Your task to perform on an android device: create a new album in the google photos Image 0: 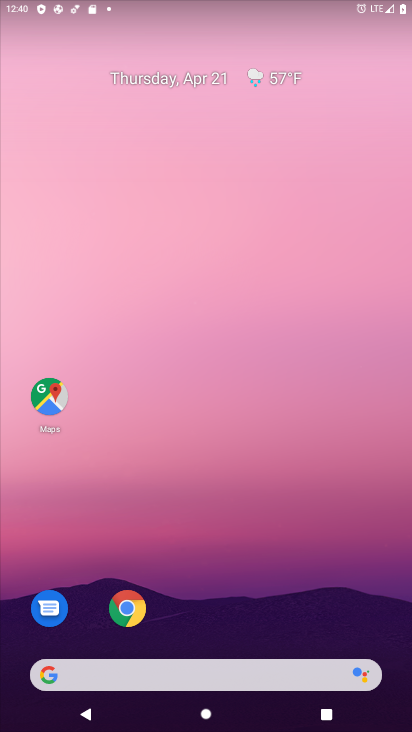
Step 0: drag from (209, 598) to (229, 104)
Your task to perform on an android device: create a new album in the google photos Image 1: 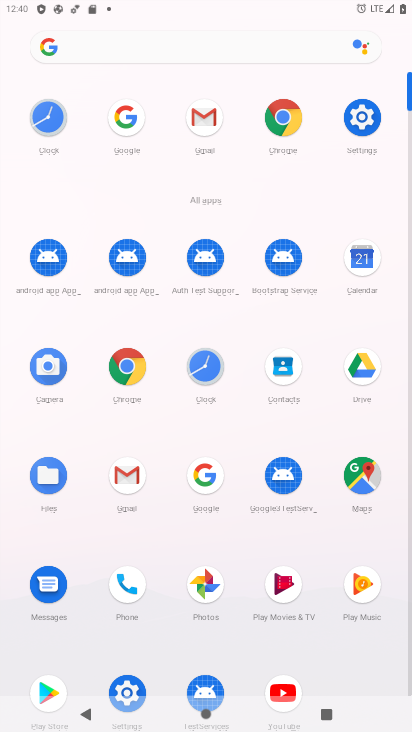
Step 1: click (212, 574)
Your task to perform on an android device: create a new album in the google photos Image 2: 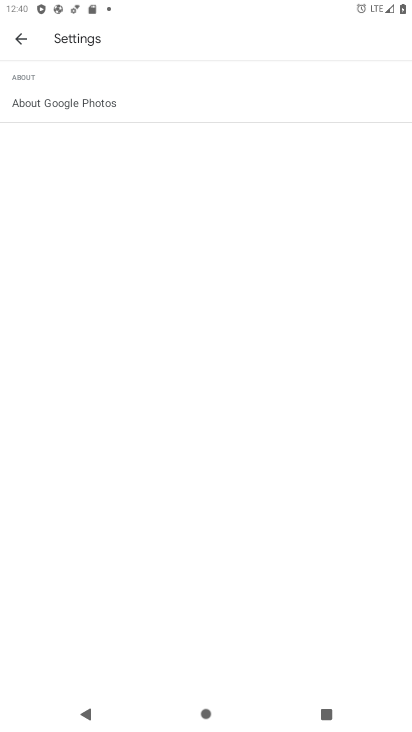
Step 2: click (13, 34)
Your task to perform on an android device: create a new album in the google photos Image 3: 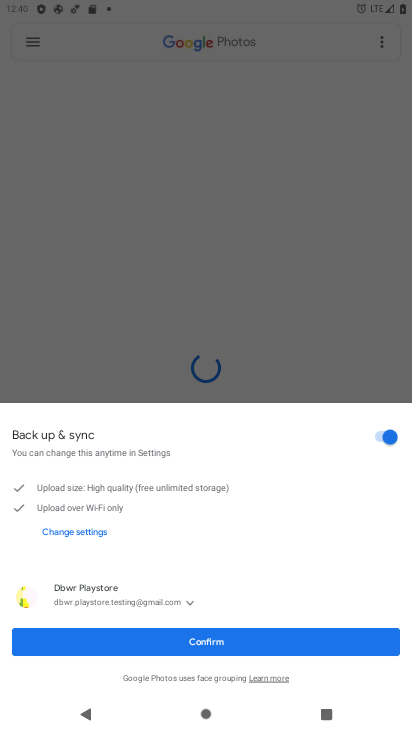
Step 3: click (201, 646)
Your task to perform on an android device: create a new album in the google photos Image 4: 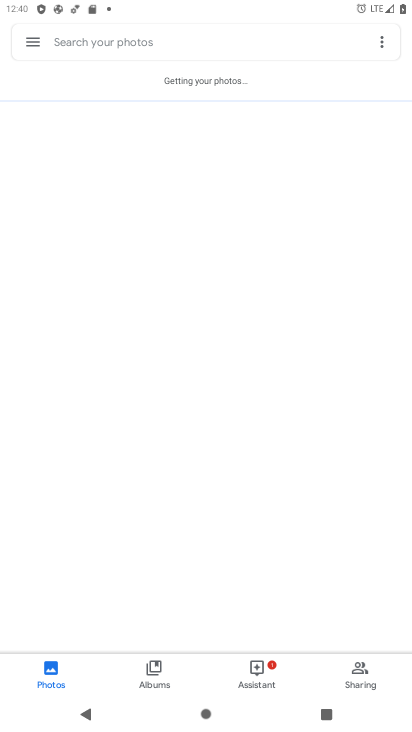
Step 4: click (377, 40)
Your task to perform on an android device: create a new album in the google photos Image 5: 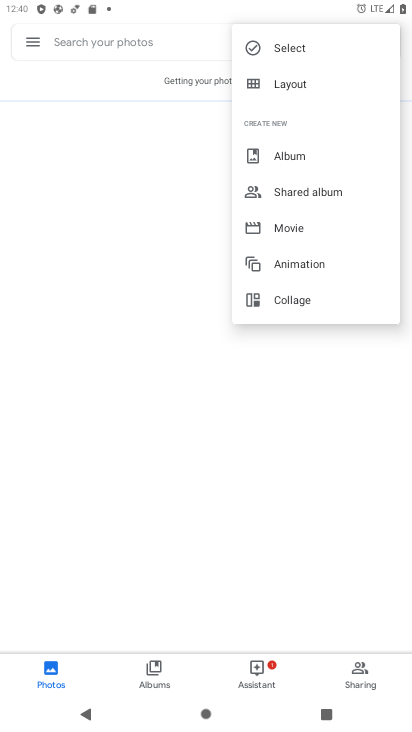
Step 5: click (287, 152)
Your task to perform on an android device: create a new album in the google photos Image 6: 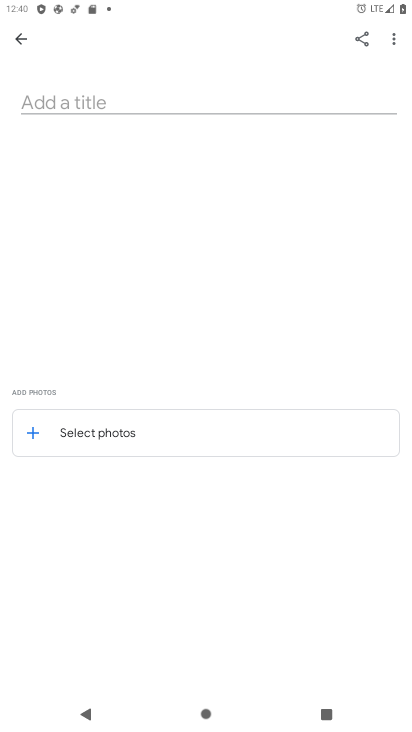
Step 6: click (92, 106)
Your task to perform on an android device: create a new album in the google photos Image 7: 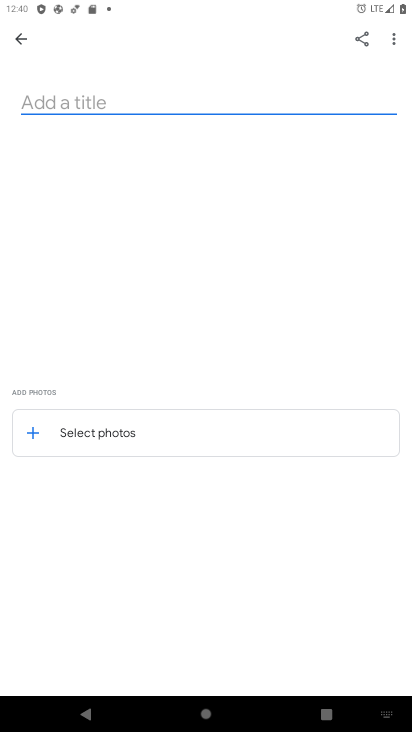
Step 7: type "bcvbc"
Your task to perform on an android device: create a new album in the google photos Image 8: 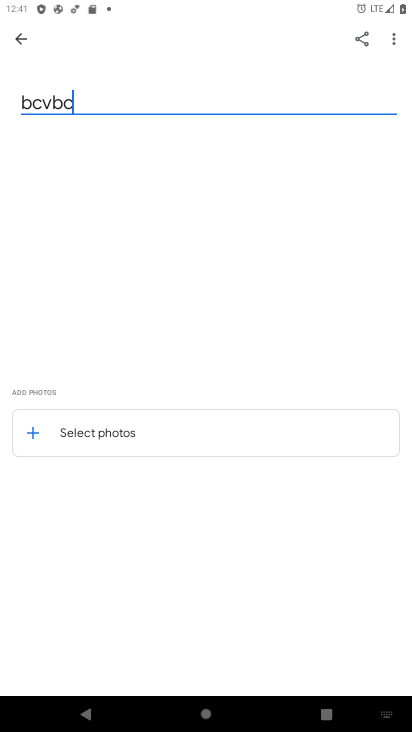
Step 8: click (31, 428)
Your task to perform on an android device: create a new album in the google photos Image 9: 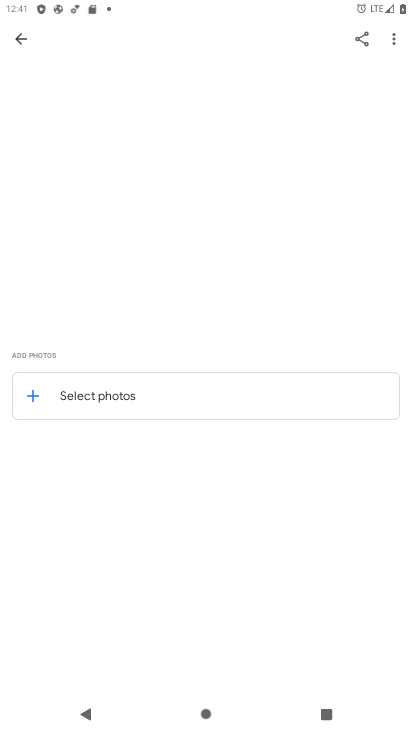
Step 9: click (31, 396)
Your task to perform on an android device: create a new album in the google photos Image 10: 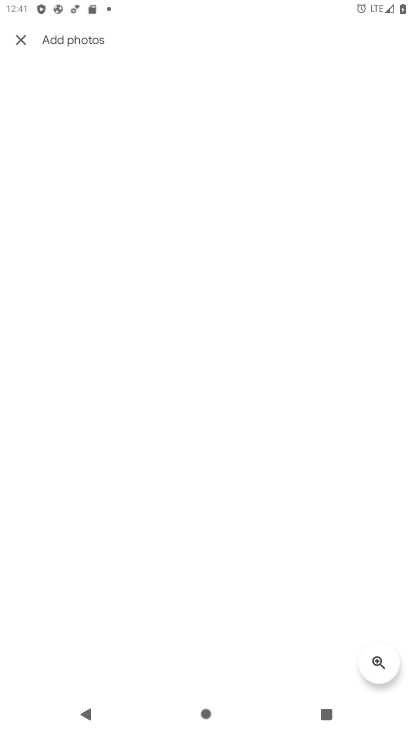
Step 10: click (22, 35)
Your task to perform on an android device: create a new album in the google photos Image 11: 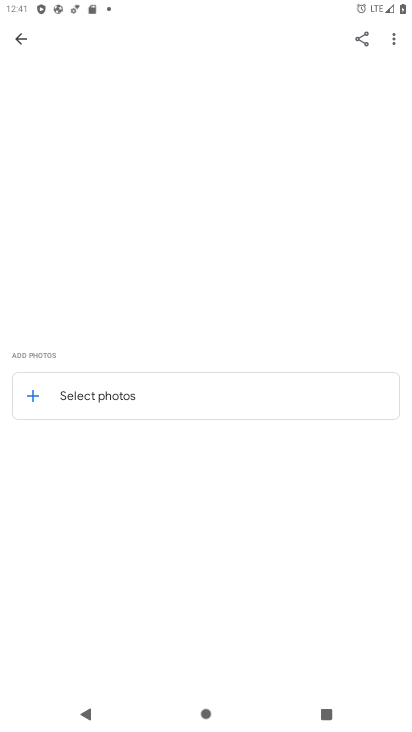
Step 11: click (33, 393)
Your task to perform on an android device: create a new album in the google photos Image 12: 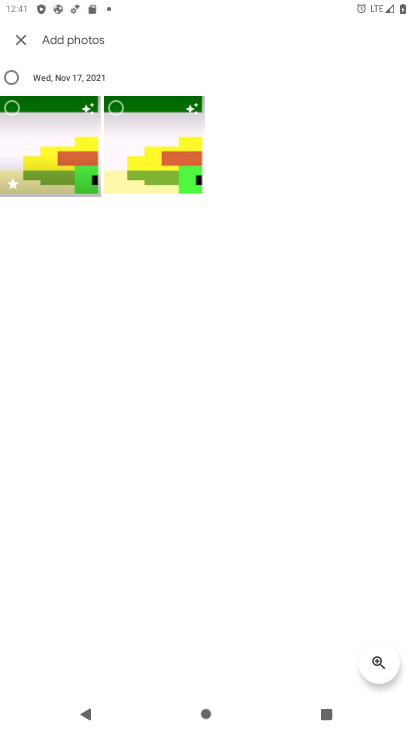
Step 12: click (114, 136)
Your task to perform on an android device: create a new album in the google photos Image 13: 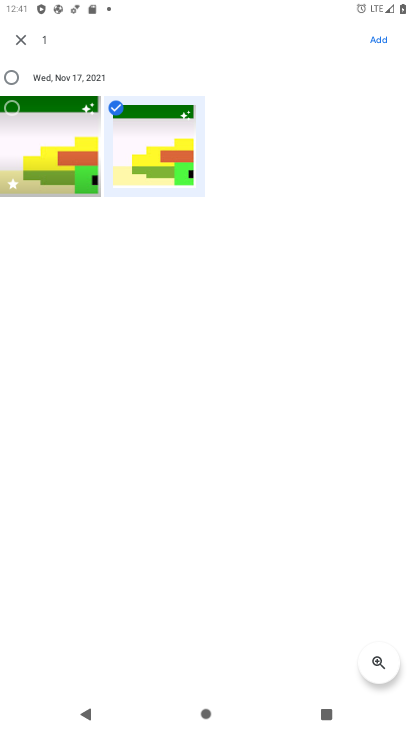
Step 13: click (382, 42)
Your task to perform on an android device: create a new album in the google photos Image 14: 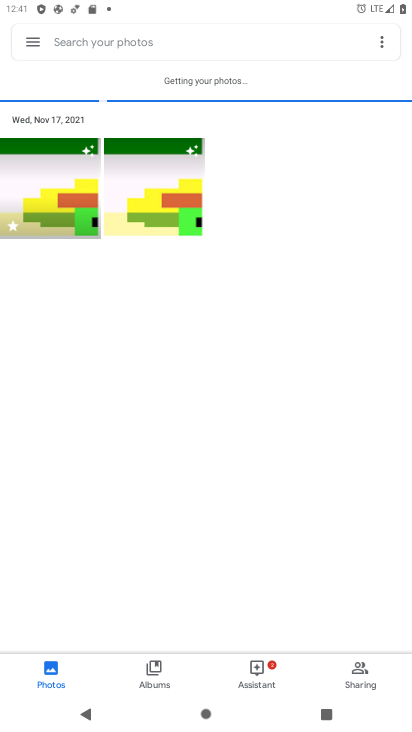
Step 14: click (379, 33)
Your task to perform on an android device: create a new album in the google photos Image 15: 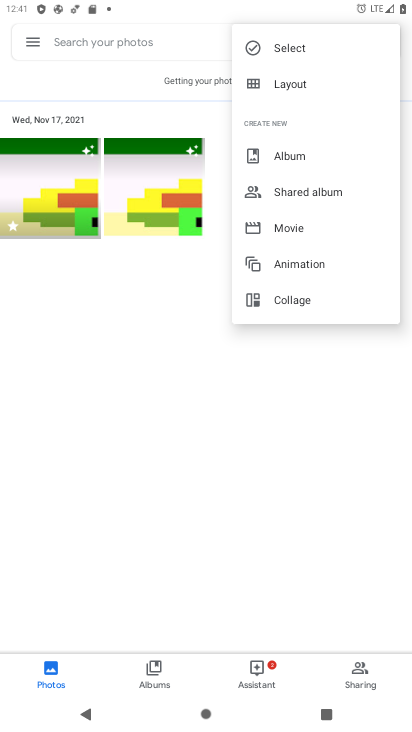
Step 15: click (287, 151)
Your task to perform on an android device: create a new album in the google photos Image 16: 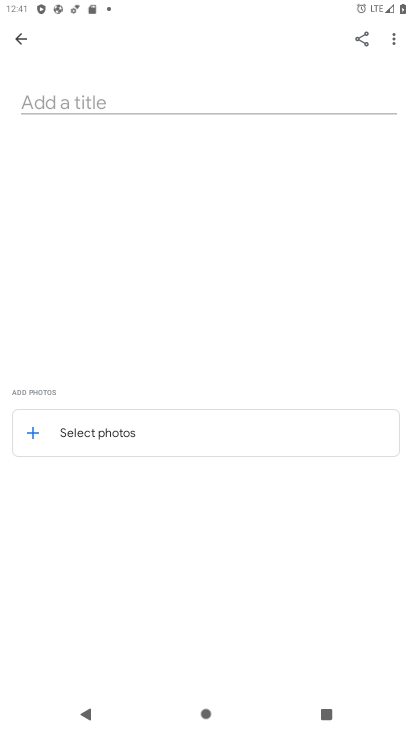
Step 16: click (136, 92)
Your task to perform on an android device: create a new album in the google photos Image 17: 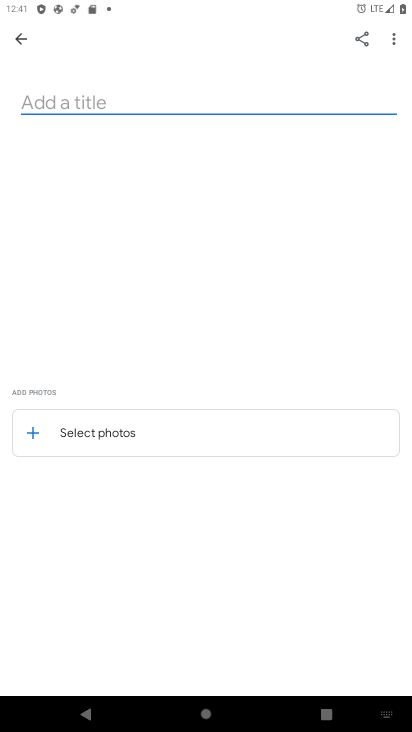
Step 17: type "bsbd"
Your task to perform on an android device: create a new album in the google photos Image 18: 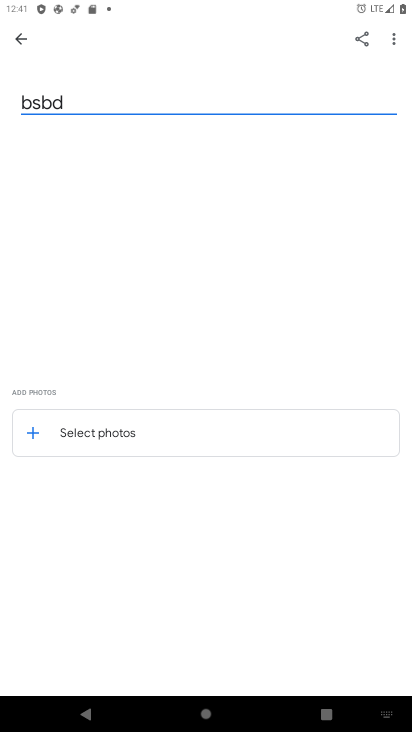
Step 18: click (127, 424)
Your task to perform on an android device: create a new album in the google photos Image 19: 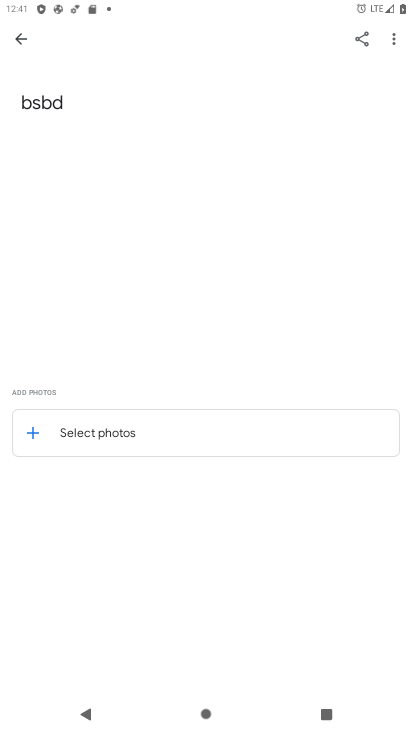
Step 19: click (93, 434)
Your task to perform on an android device: create a new album in the google photos Image 20: 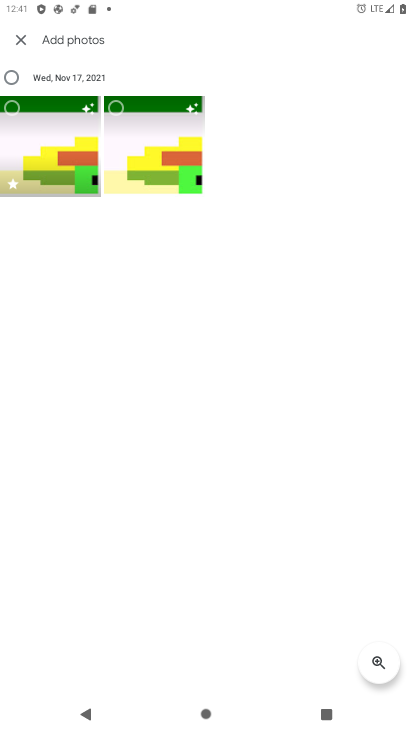
Step 20: click (150, 176)
Your task to perform on an android device: create a new album in the google photos Image 21: 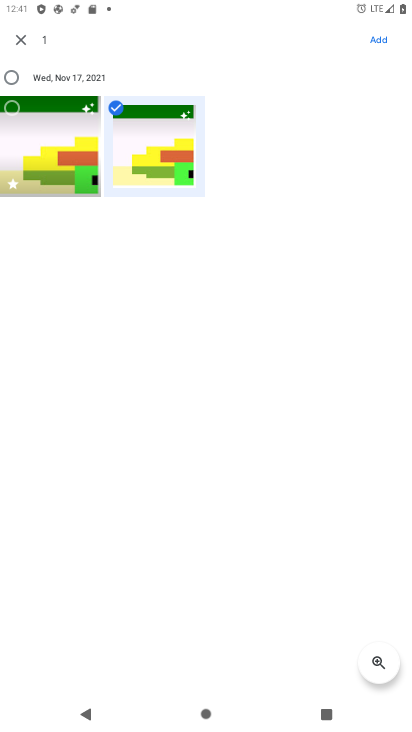
Step 21: click (372, 33)
Your task to perform on an android device: create a new album in the google photos Image 22: 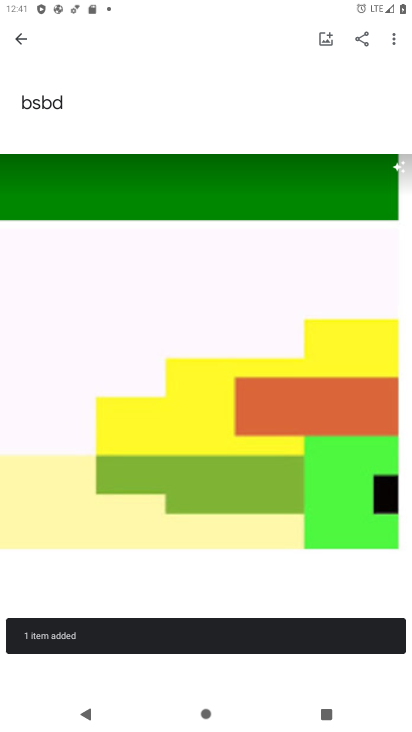
Step 22: task complete